Your task to perform on an android device: turn vacation reply on in the gmail app Image 0: 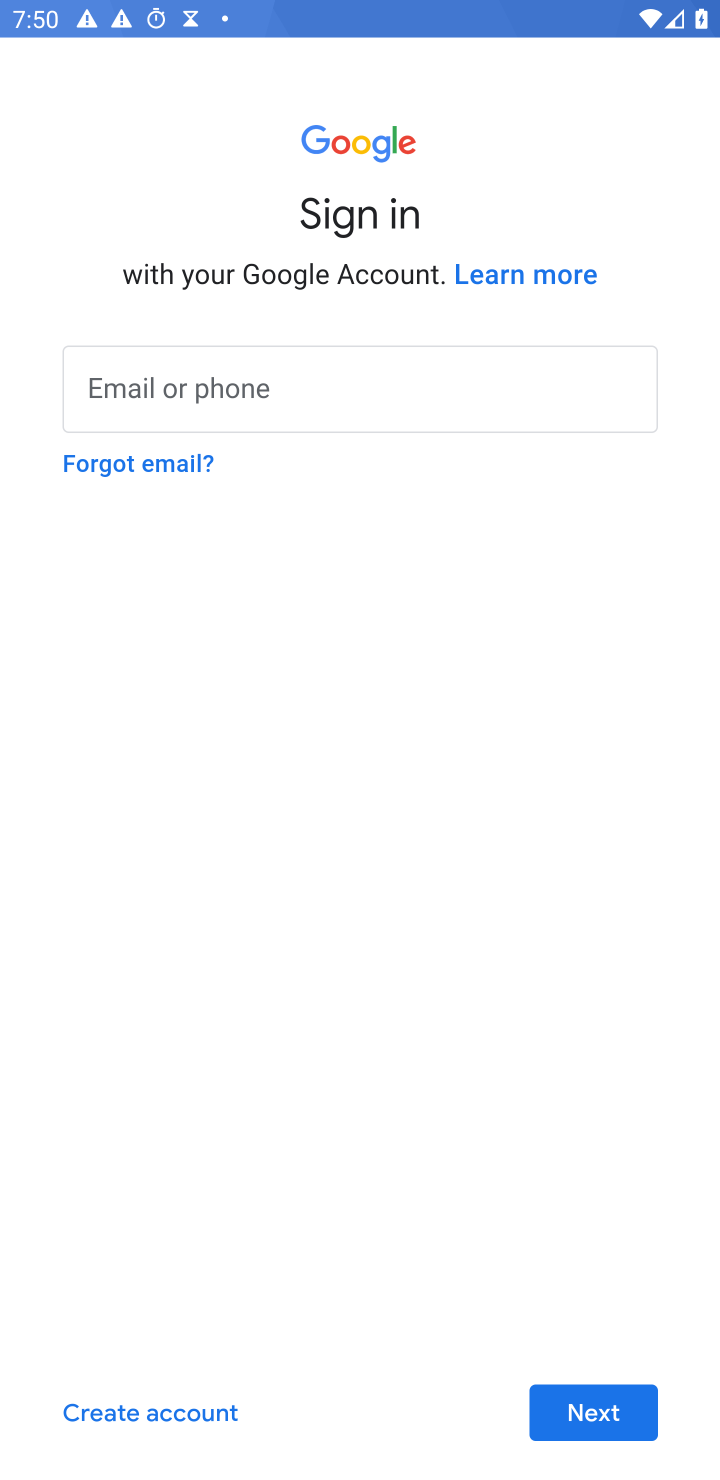
Step 0: press home button
Your task to perform on an android device: turn vacation reply on in the gmail app Image 1: 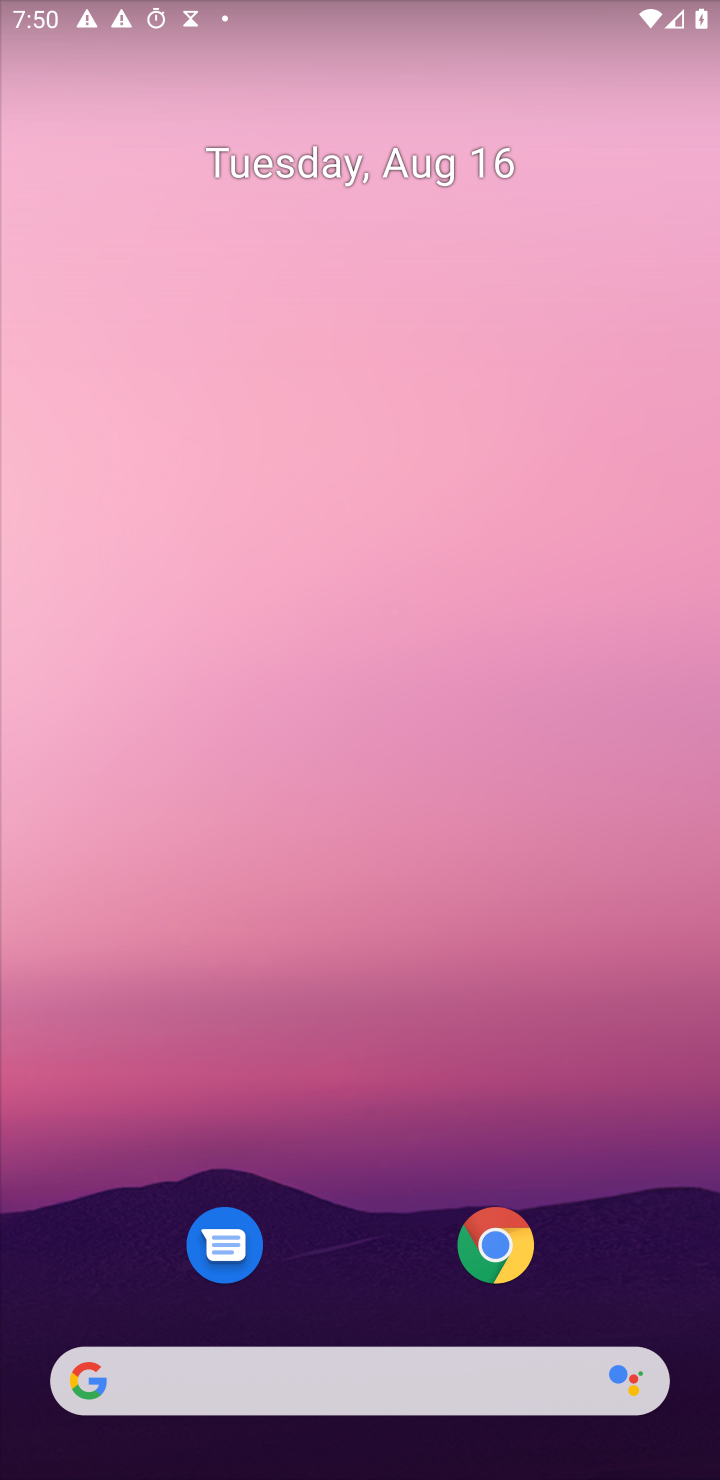
Step 1: drag from (368, 547) to (378, 302)
Your task to perform on an android device: turn vacation reply on in the gmail app Image 2: 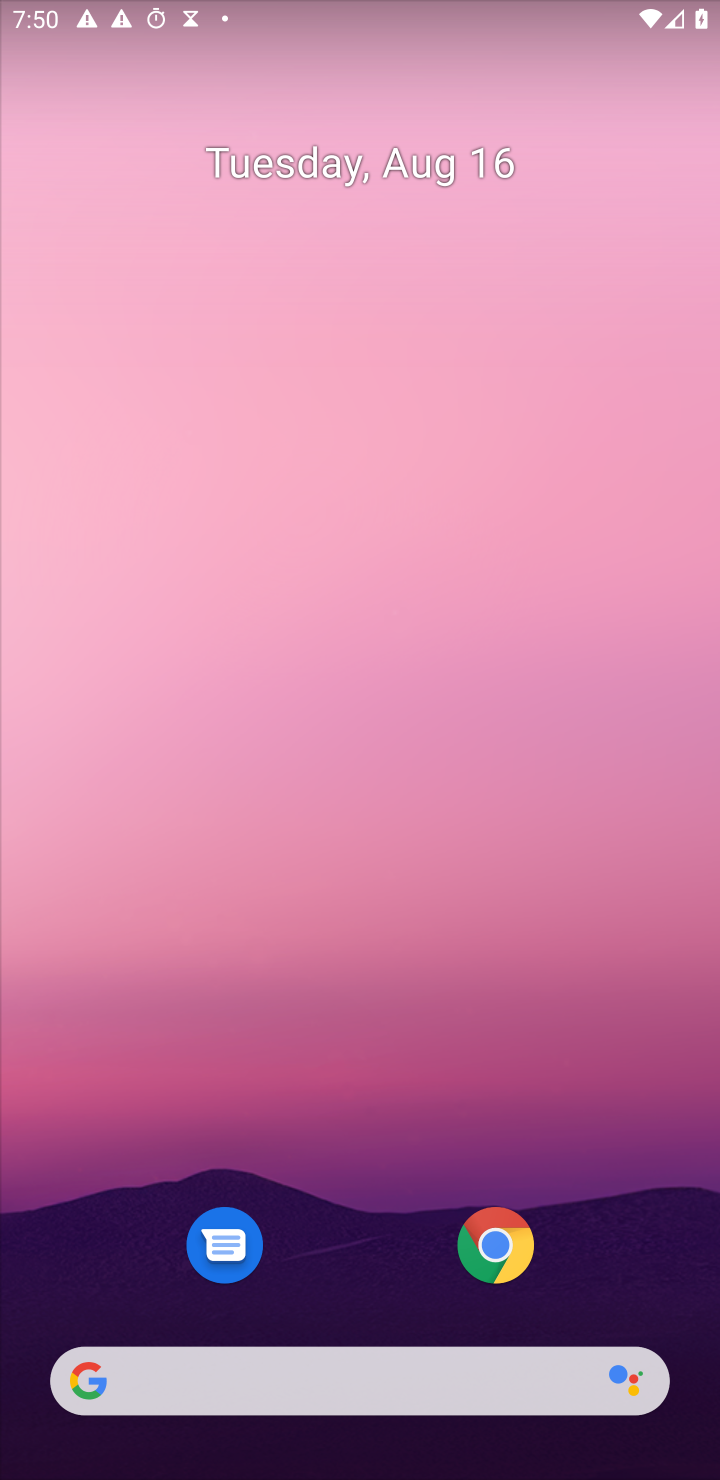
Step 2: drag from (361, 1185) to (326, 93)
Your task to perform on an android device: turn vacation reply on in the gmail app Image 3: 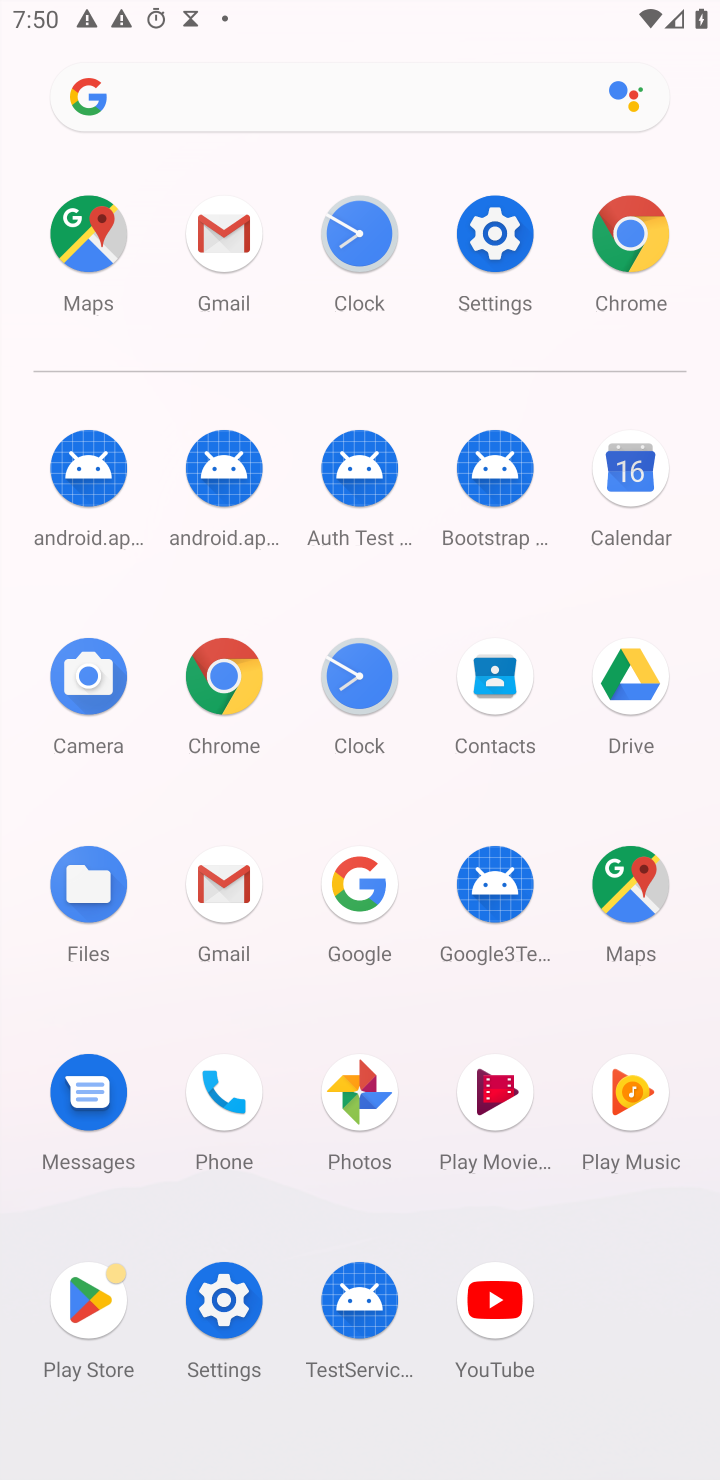
Step 3: click (223, 246)
Your task to perform on an android device: turn vacation reply on in the gmail app Image 4: 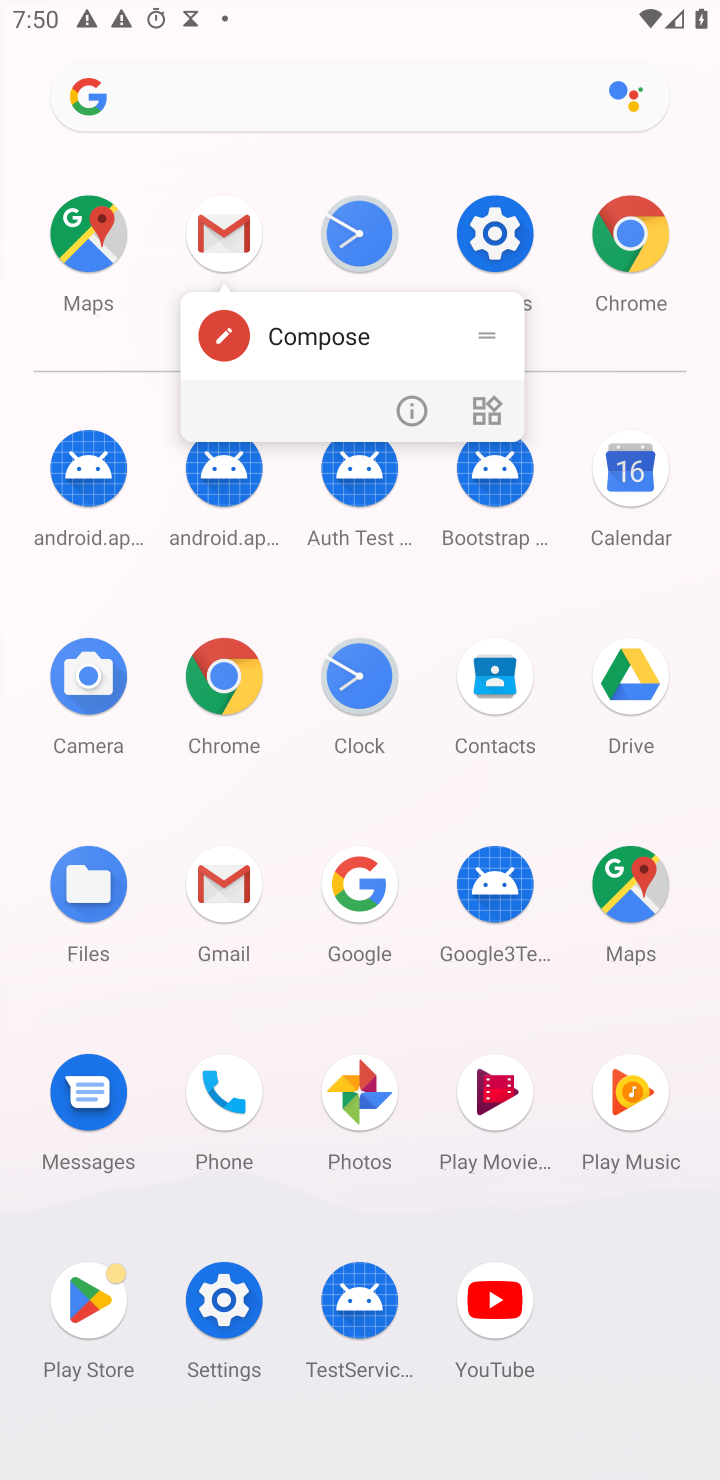
Step 4: click (211, 235)
Your task to perform on an android device: turn vacation reply on in the gmail app Image 5: 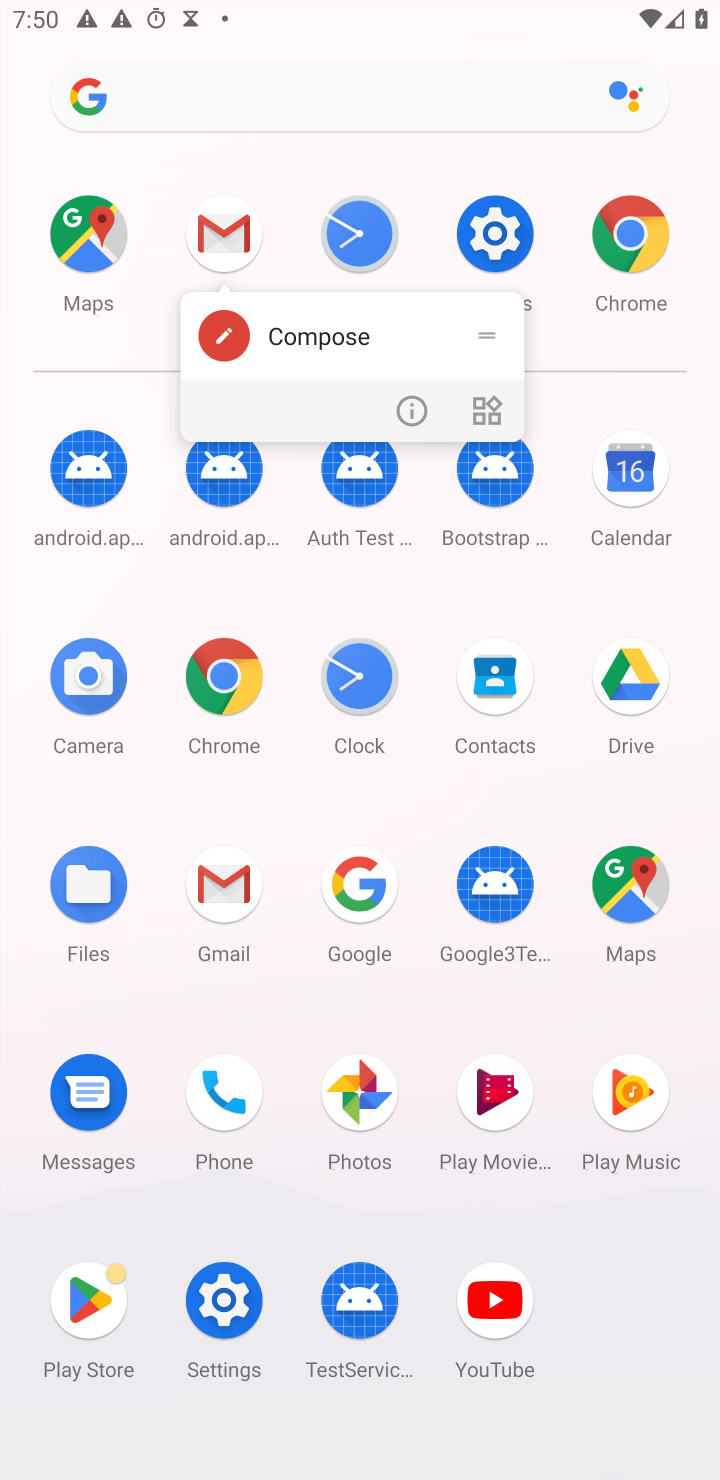
Step 5: click (221, 229)
Your task to perform on an android device: turn vacation reply on in the gmail app Image 6: 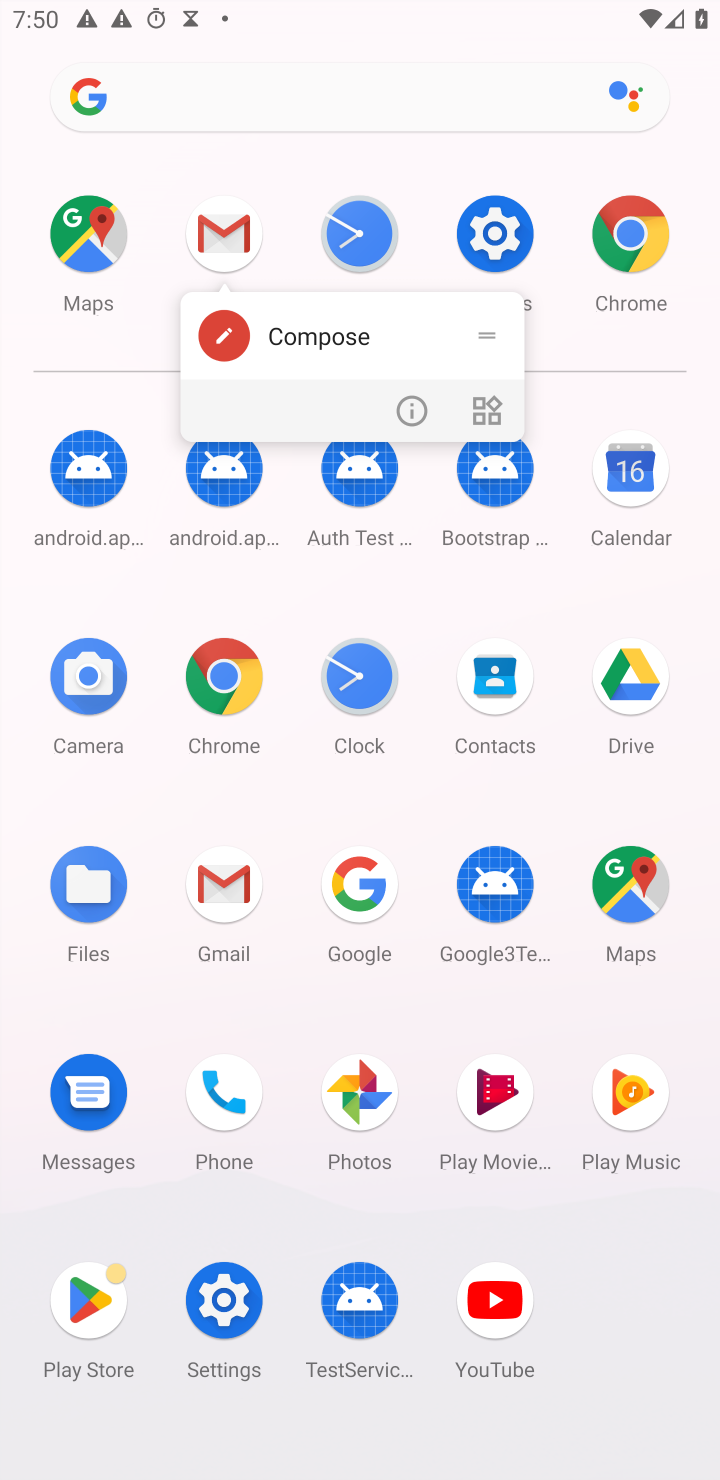
Step 6: click (221, 229)
Your task to perform on an android device: turn vacation reply on in the gmail app Image 7: 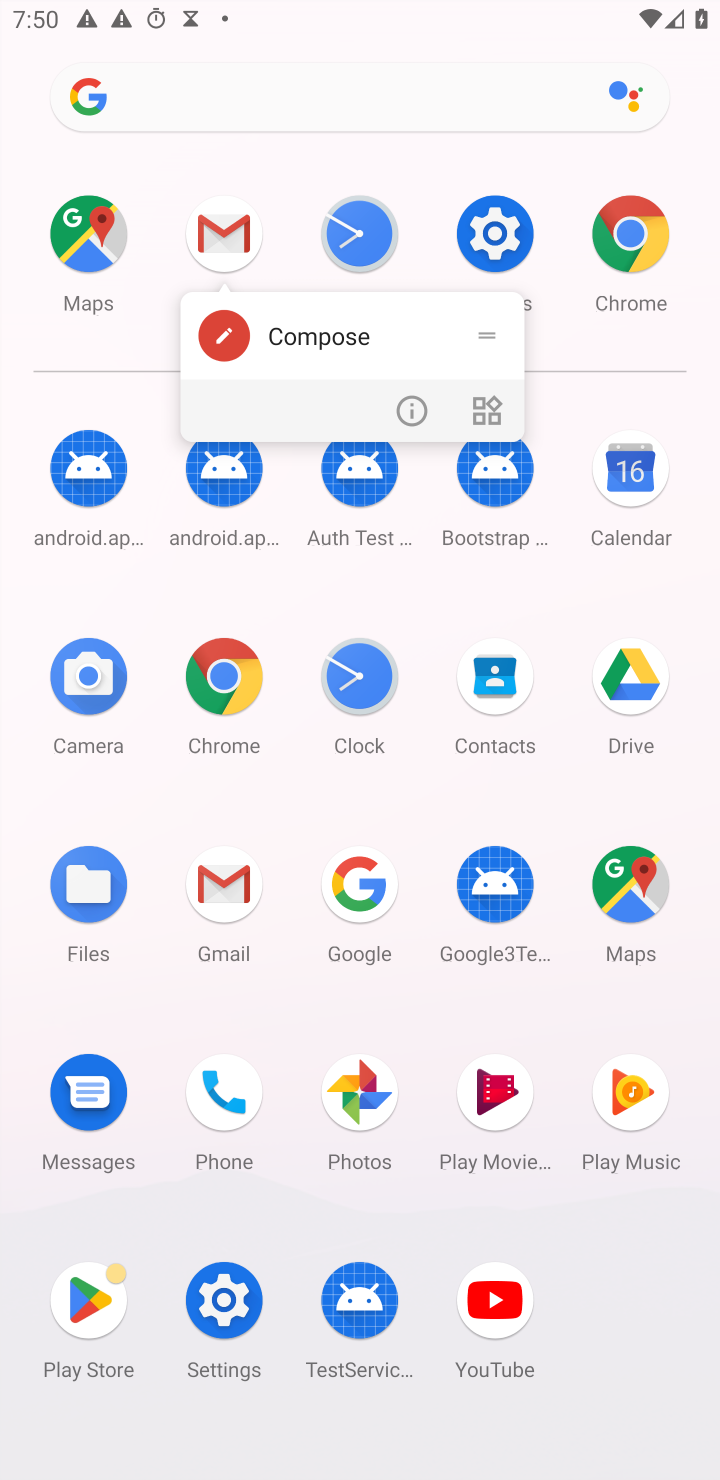
Step 7: click (218, 212)
Your task to perform on an android device: turn vacation reply on in the gmail app Image 8: 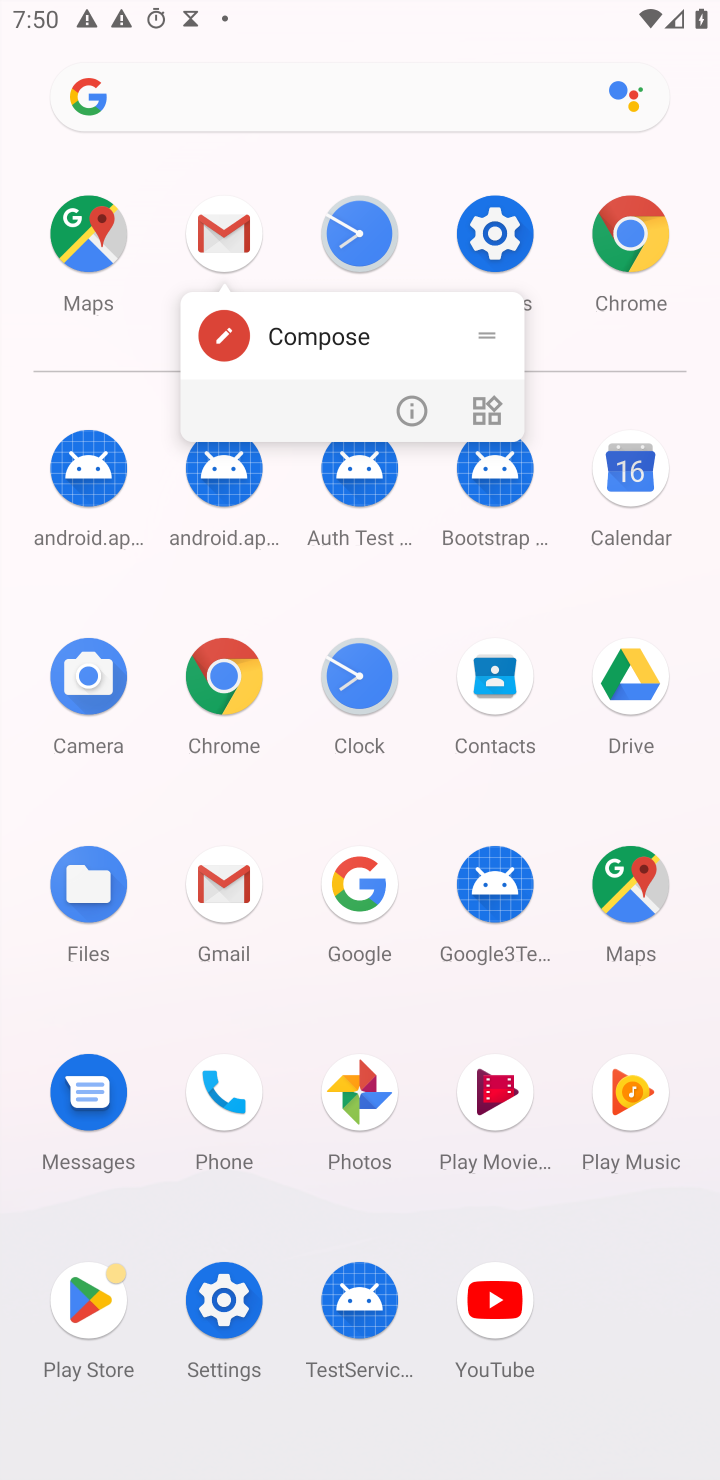
Step 8: click (228, 230)
Your task to perform on an android device: turn vacation reply on in the gmail app Image 9: 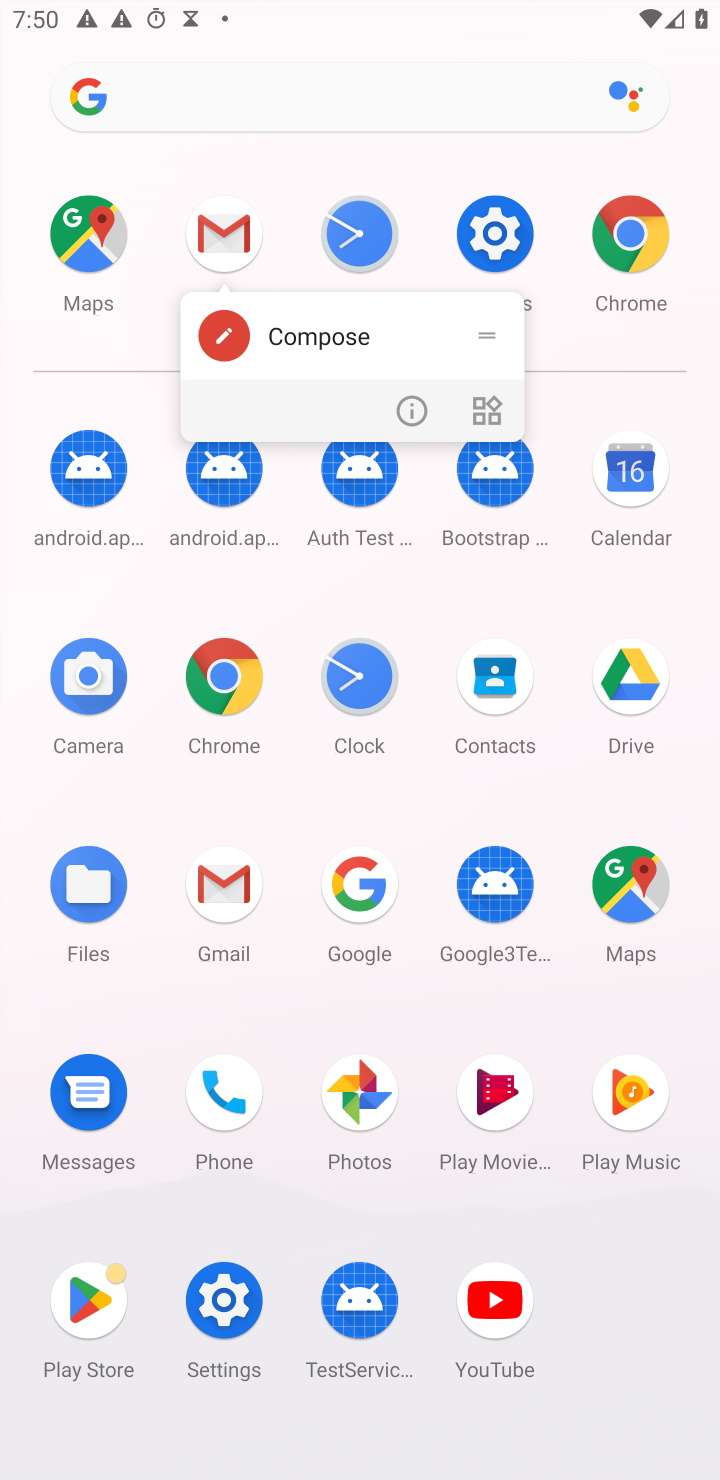
Step 9: click (230, 230)
Your task to perform on an android device: turn vacation reply on in the gmail app Image 10: 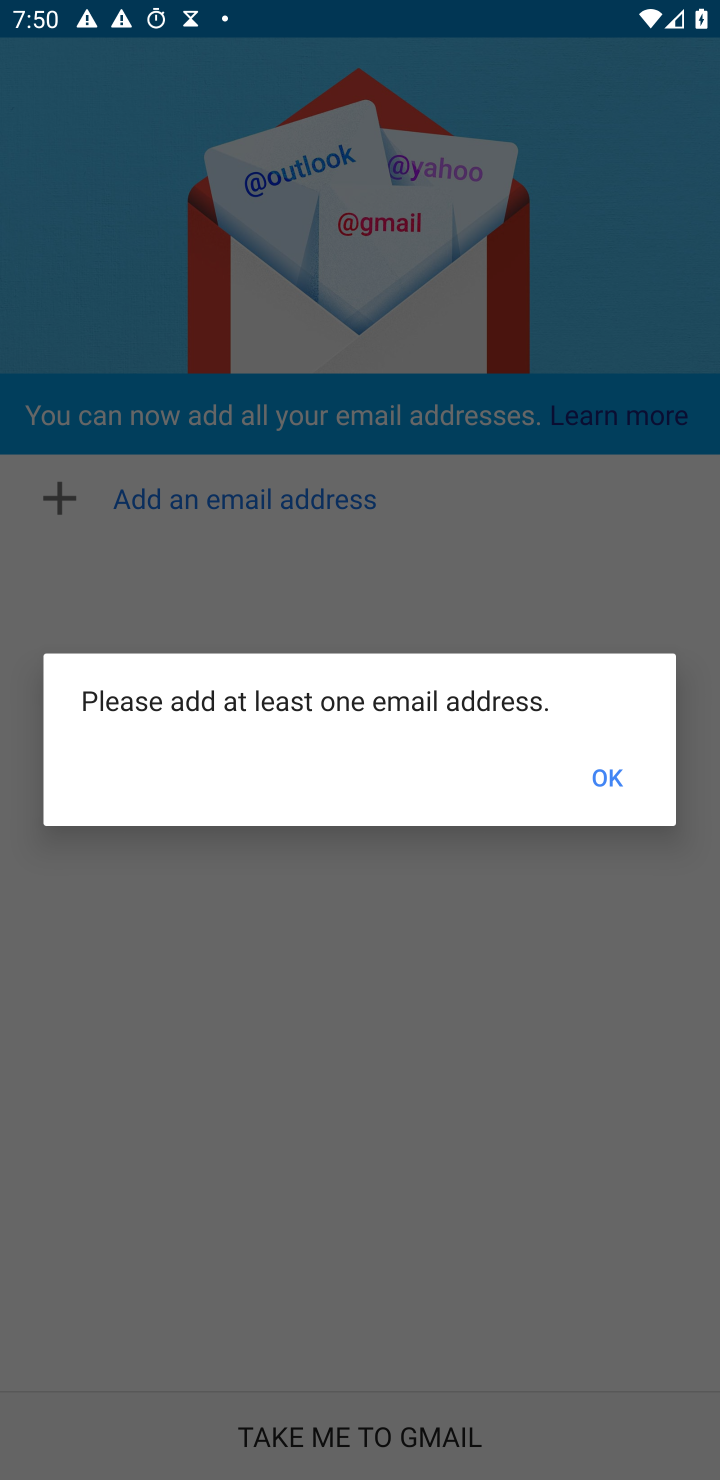
Step 10: task complete